Your task to perform on an android device: Check the weather Image 0: 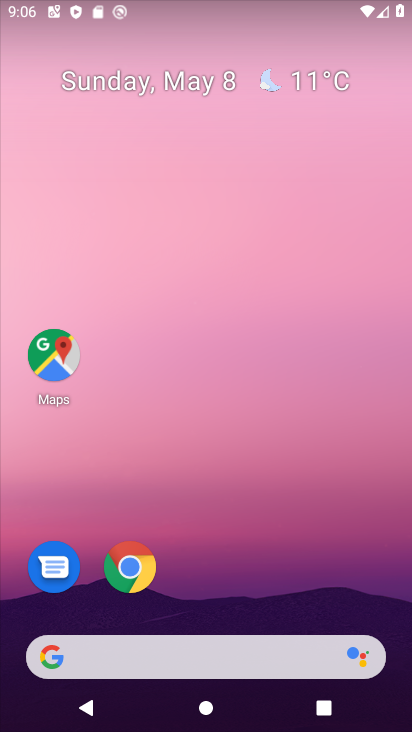
Step 0: click (292, 78)
Your task to perform on an android device: Check the weather Image 1: 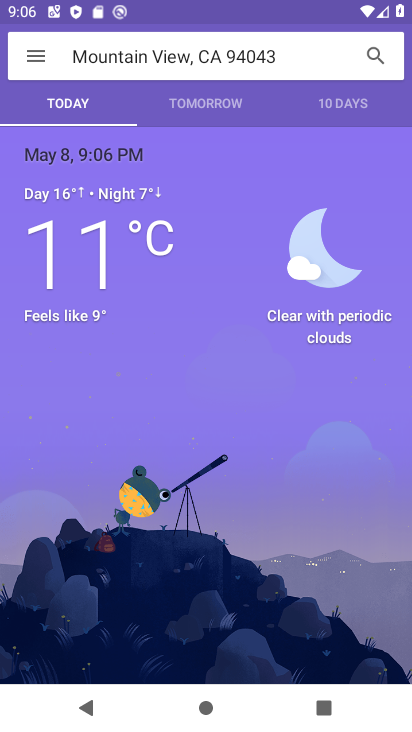
Step 1: task complete